Your task to perform on an android device: clear history in the chrome app Image 0: 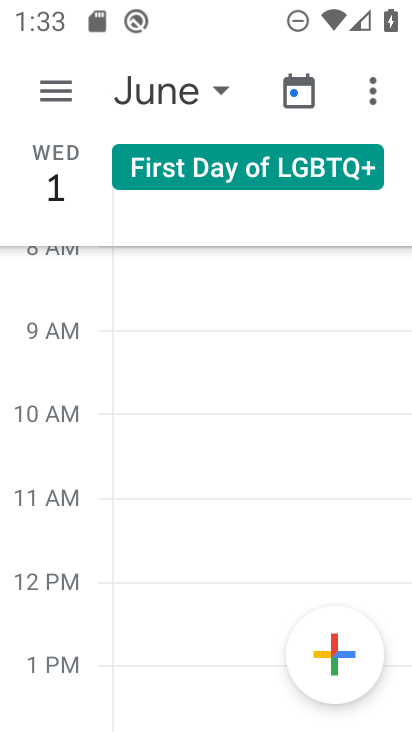
Step 0: press home button
Your task to perform on an android device: clear history in the chrome app Image 1: 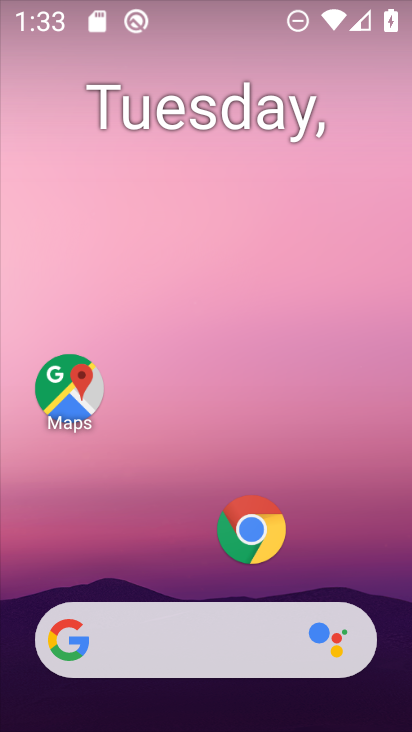
Step 1: click (261, 526)
Your task to perform on an android device: clear history in the chrome app Image 2: 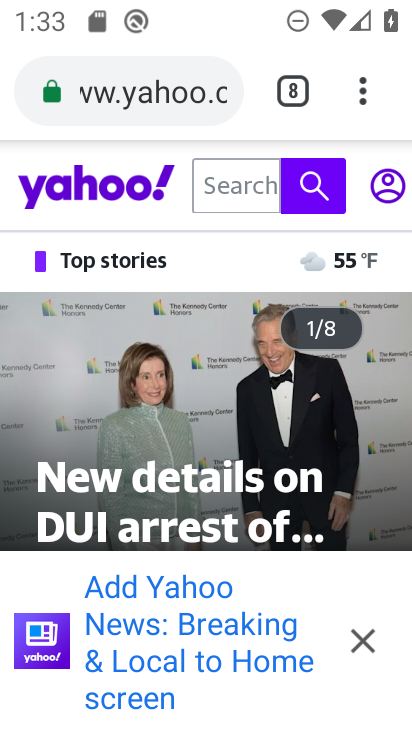
Step 2: click (362, 89)
Your task to perform on an android device: clear history in the chrome app Image 3: 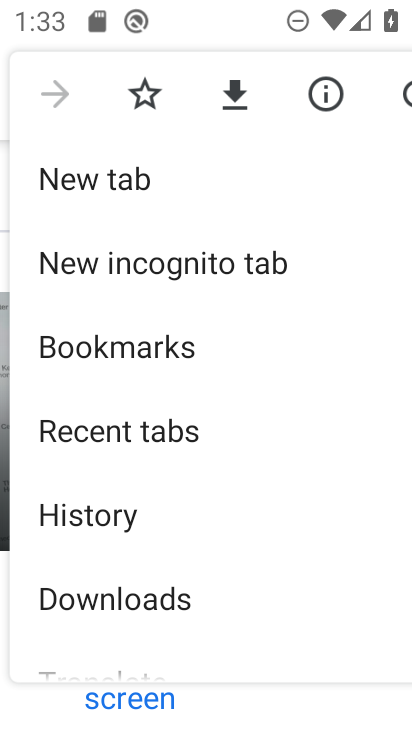
Step 3: drag from (184, 485) to (202, 355)
Your task to perform on an android device: clear history in the chrome app Image 4: 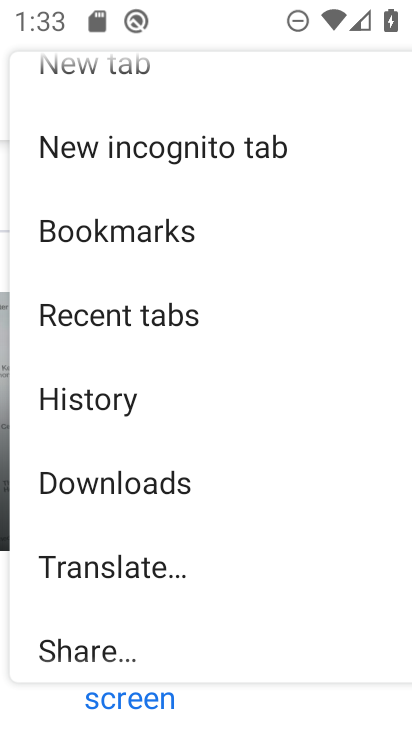
Step 4: click (146, 391)
Your task to perform on an android device: clear history in the chrome app Image 5: 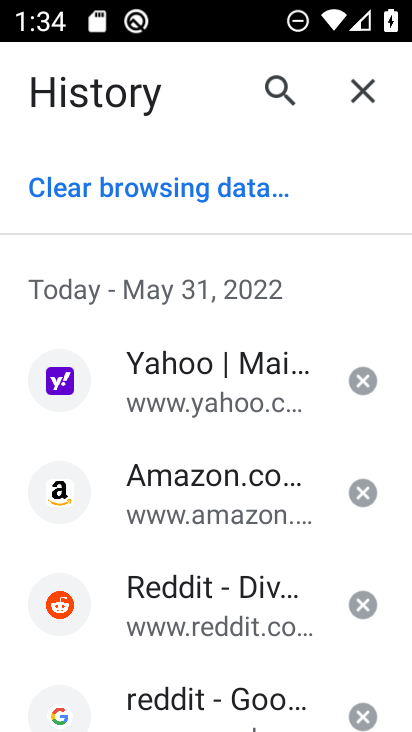
Step 5: click (119, 190)
Your task to perform on an android device: clear history in the chrome app Image 6: 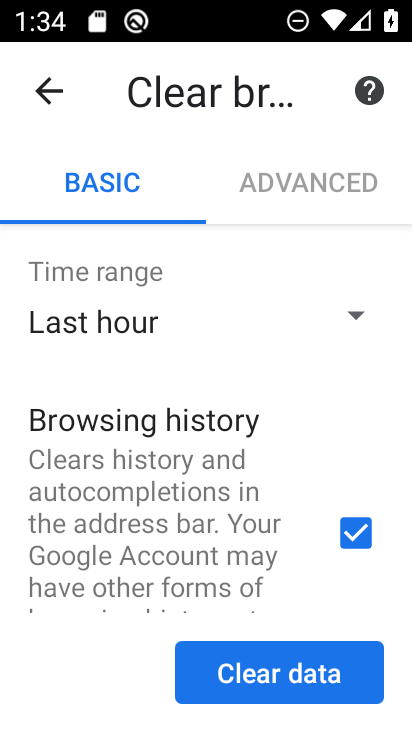
Step 6: click (279, 666)
Your task to perform on an android device: clear history in the chrome app Image 7: 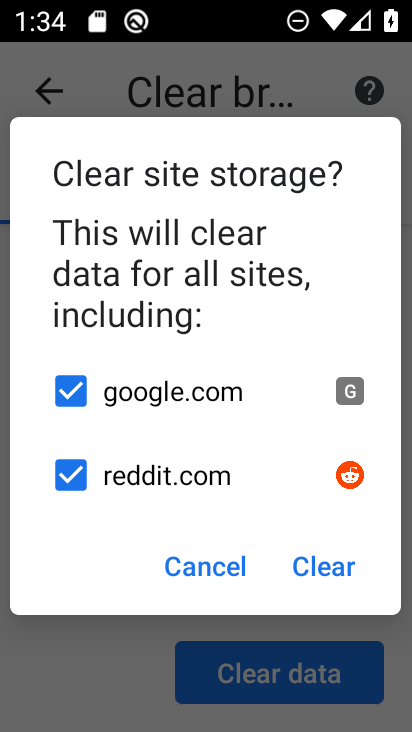
Step 7: task complete